Your task to perform on an android device: turn off airplane mode Image 0: 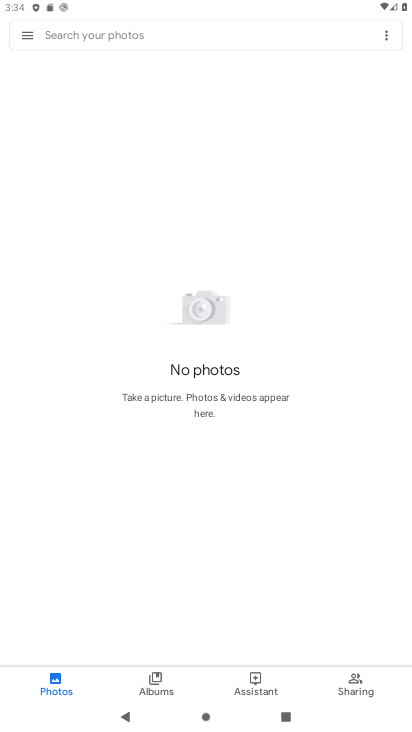
Step 0: press home button
Your task to perform on an android device: turn off airplane mode Image 1: 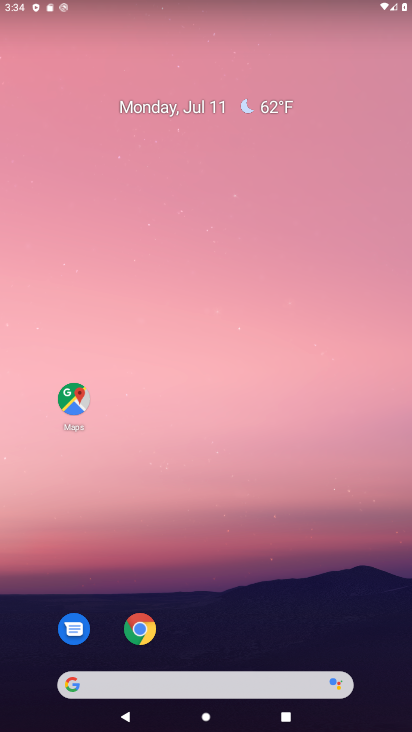
Step 1: drag from (218, 631) to (218, 179)
Your task to perform on an android device: turn off airplane mode Image 2: 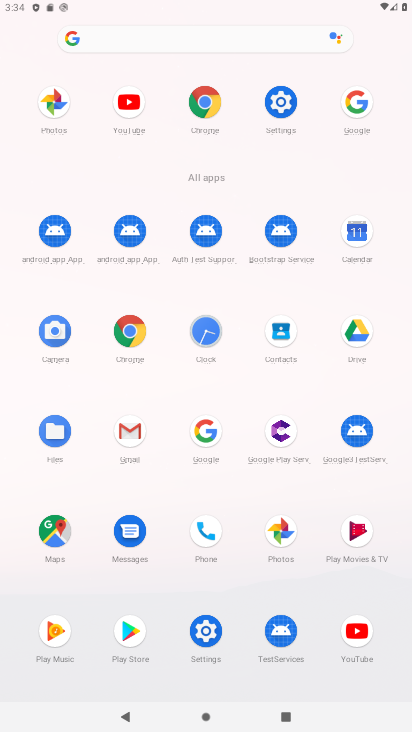
Step 2: click (291, 110)
Your task to perform on an android device: turn off airplane mode Image 3: 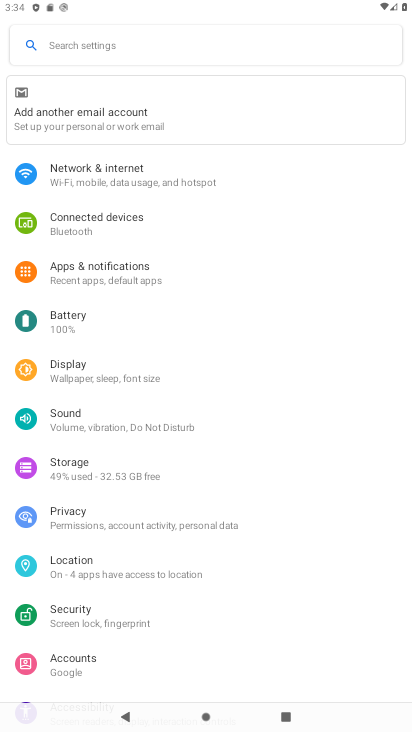
Step 3: click (155, 171)
Your task to perform on an android device: turn off airplane mode Image 4: 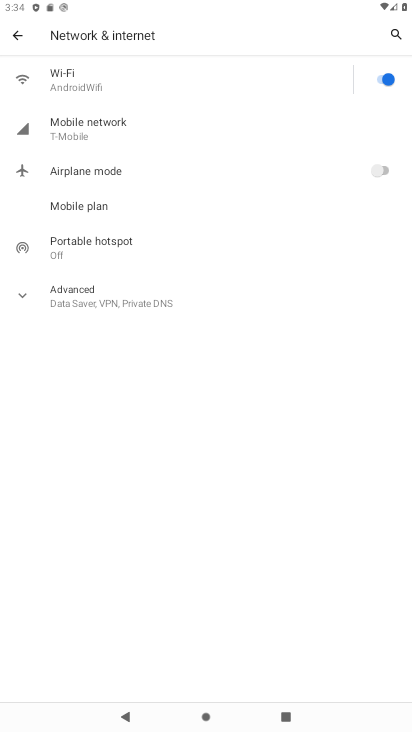
Step 4: task complete